Your task to perform on an android device: Open settings on Google Maps Image 0: 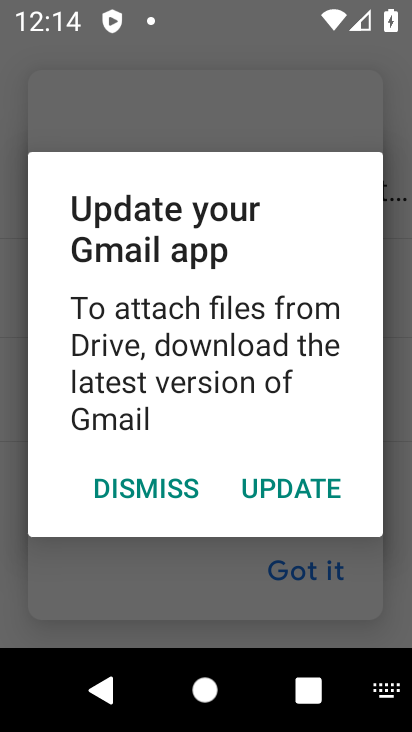
Step 0: press home button
Your task to perform on an android device: Open settings on Google Maps Image 1: 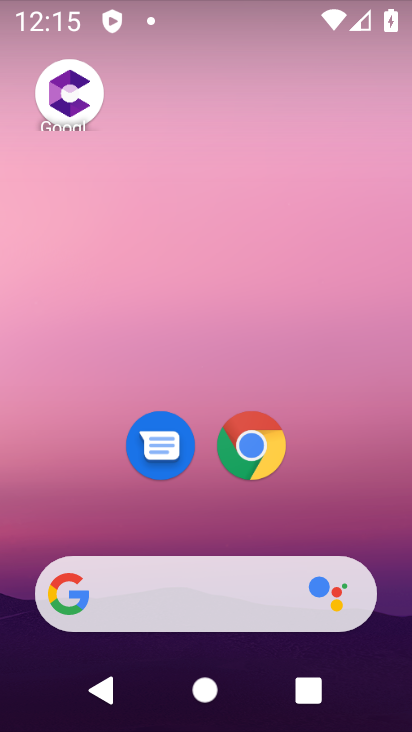
Step 1: drag from (125, 561) to (236, 18)
Your task to perform on an android device: Open settings on Google Maps Image 2: 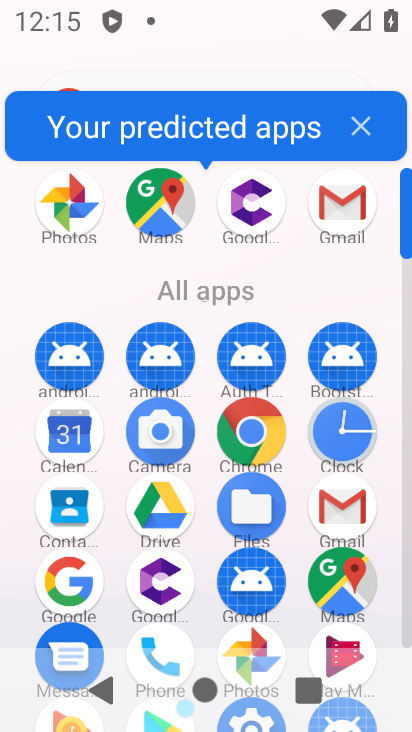
Step 2: click (359, 586)
Your task to perform on an android device: Open settings on Google Maps Image 3: 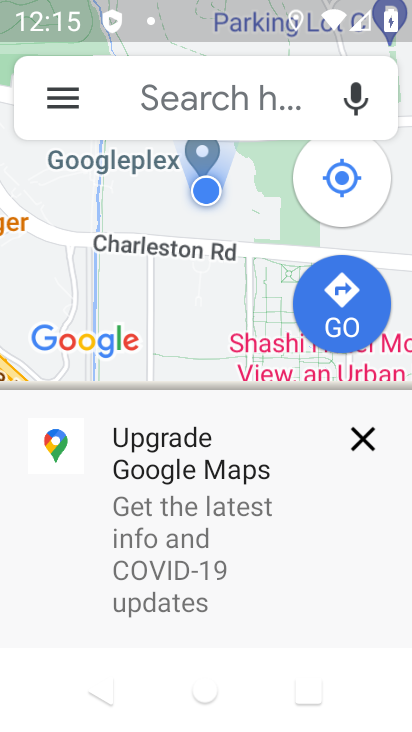
Step 3: click (355, 445)
Your task to perform on an android device: Open settings on Google Maps Image 4: 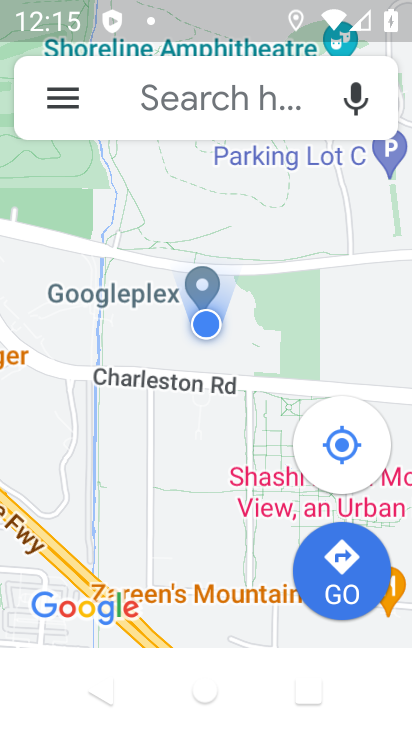
Step 4: click (80, 105)
Your task to perform on an android device: Open settings on Google Maps Image 5: 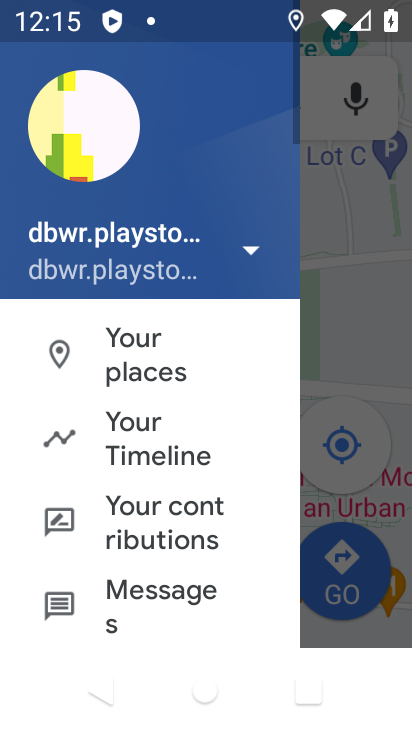
Step 5: drag from (149, 580) to (301, 102)
Your task to perform on an android device: Open settings on Google Maps Image 6: 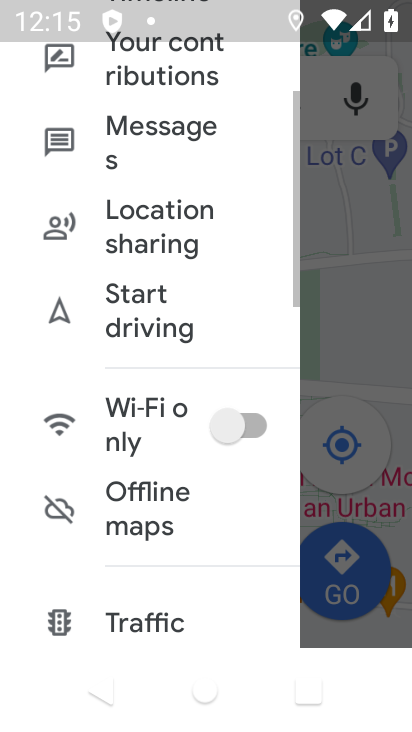
Step 6: drag from (166, 616) to (276, 149)
Your task to perform on an android device: Open settings on Google Maps Image 7: 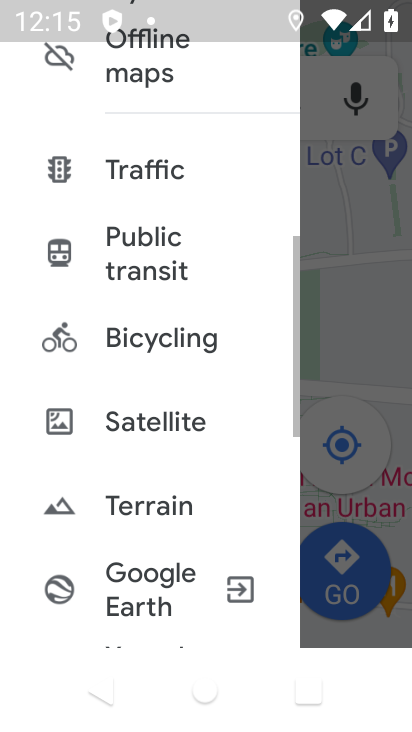
Step 7: drag from (160, 563) to (255, 188)
Your task to perform on an android device: Open settings on Google Maps Image 8: 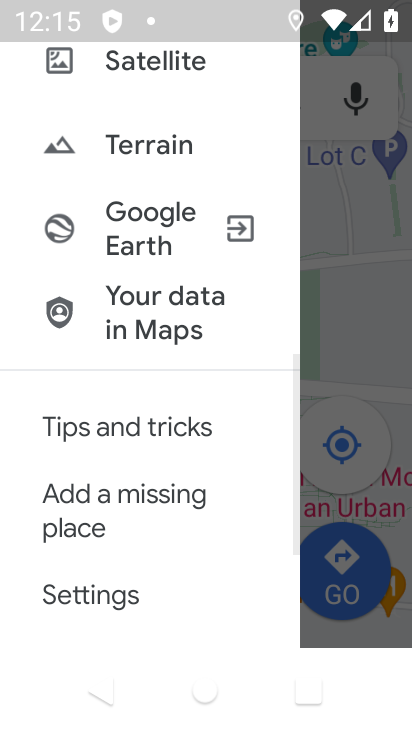
Step 8: drag from (137, 602) to (217, 299)
Your task to perform on an android device: Open settings on Google Maps Image 9: 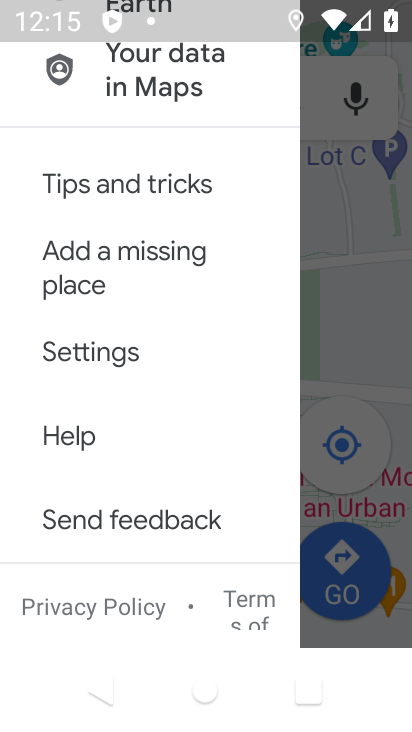
Step 9: click (128, 351)
Your task to perform on an android device: Open settings on Google Maps Image 10: 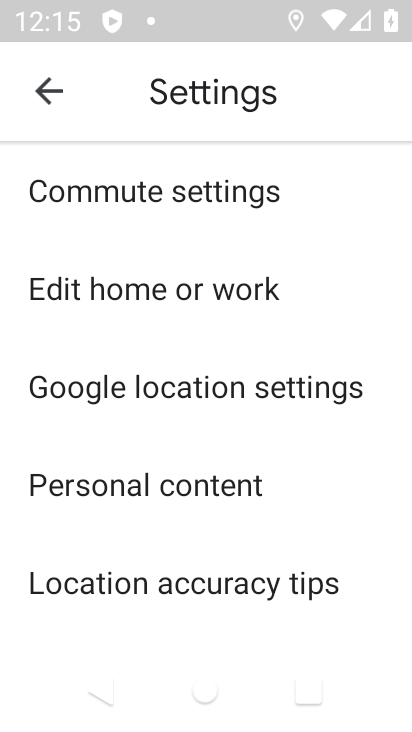
Step 10: task complete